Your task to perform on an android device: open app "Google Home" Image 0: 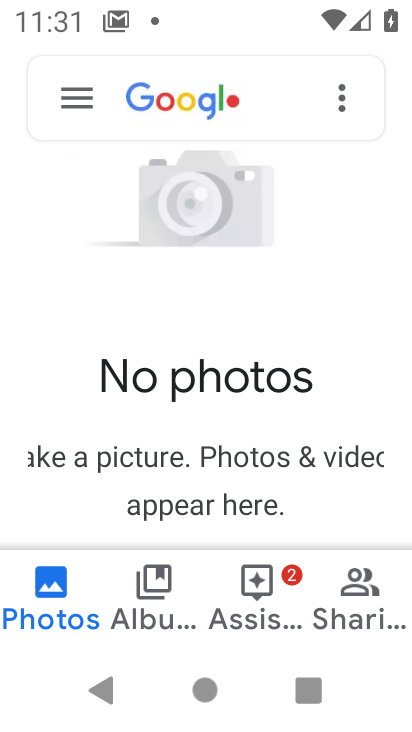
Step 0: press home button
Your task to perform on an android device: open app "Google Home" Image 1: 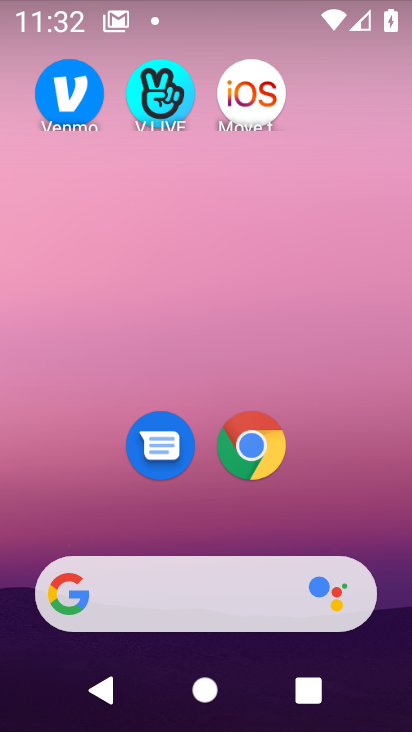
Step 1: drag from (248, 581) to (258, 133)
Your task to perform on an android device: open app "Google Home" Image 2: 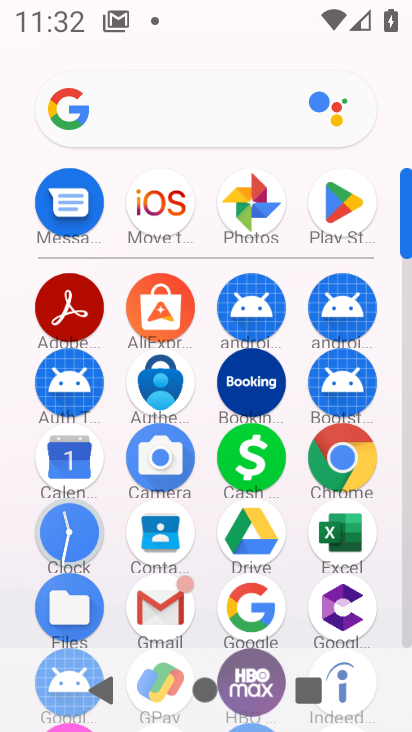
Step 2: click (355, 223)
Your task to perform on an android device: open app "Google Home" Image 3: 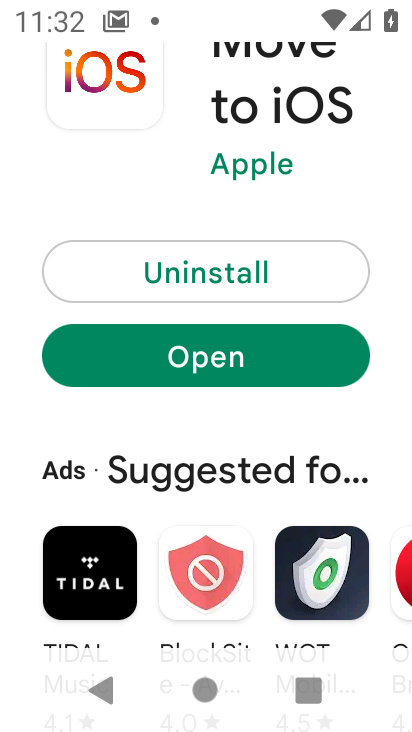
Step 3: drag from (108, 264) to (24, 626)
Your task to perform on an android device: open app "Google Home" Image 4: 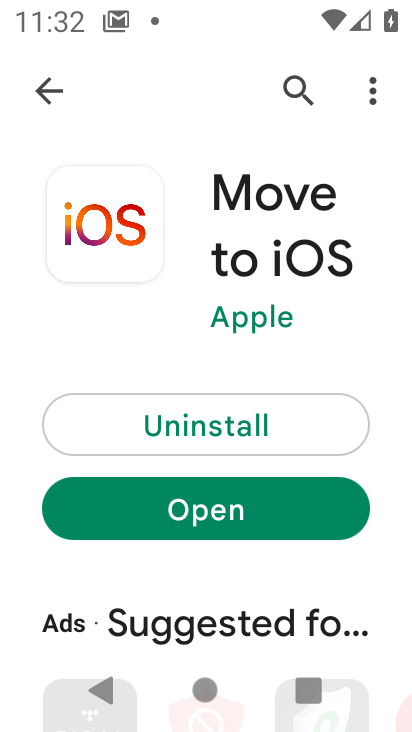
Step 4: click (59, 96)
Your task to perform on an android device: open app "Google Home" Image 5: 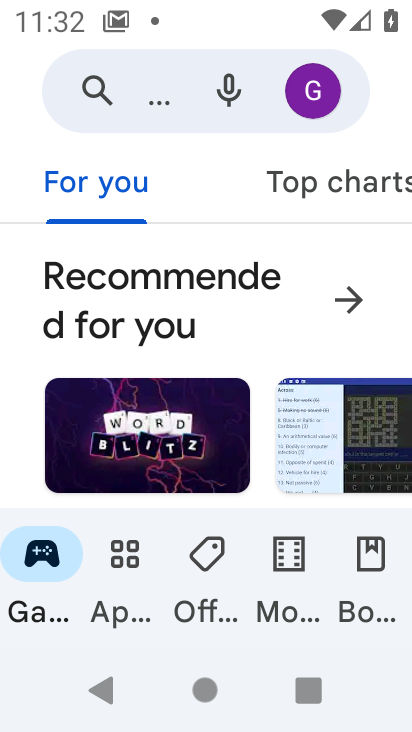
Step 5: click (90, 90)
Your task to perform on an android device: open app "Google Home" Image 6: 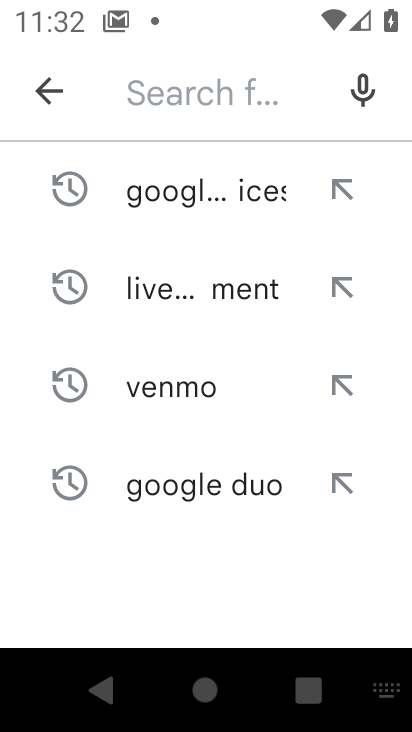
Step 6: type "Google Home"
Your task to perform on an android device: open app "Google Home" Image 7: 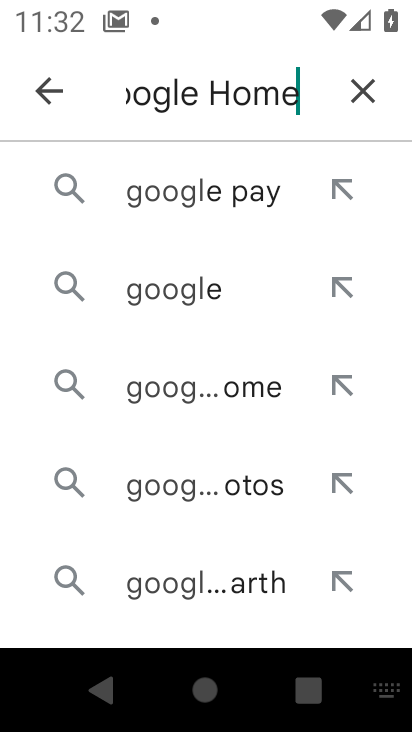
Step 7: type ""
Your task to perform on an android device: open app "Google Home" Image 8: 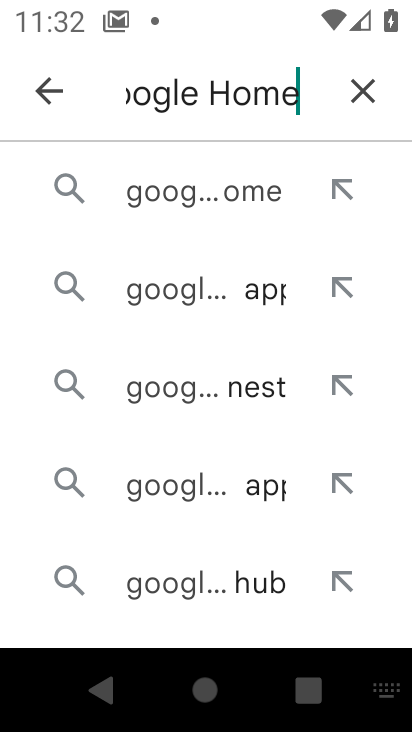
Step 8: click (232, 190)
Your task to perform on an android device: open app "Google Home" Image 9: 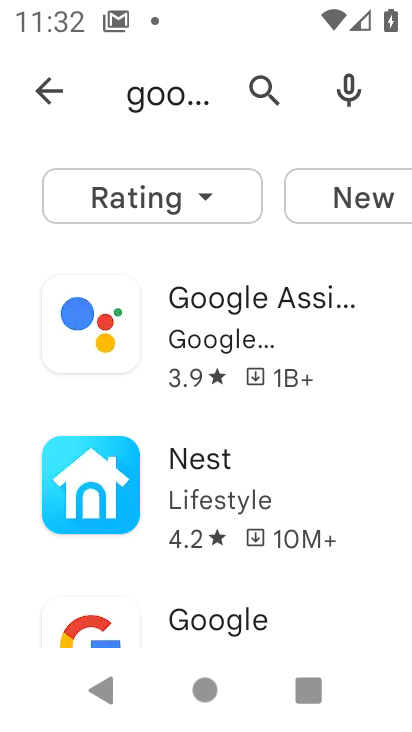
Step 9: drag from (217, 484) to (240, 246)
Your task to perform on an android device: open app "Google Home" Image 10: 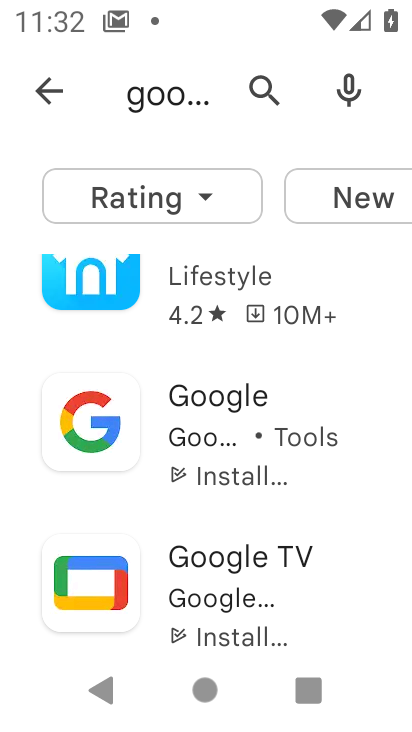
Step 10: drag from (188, 513) to (94, 564)
Your task to perform on an android device: open app "Google Home" Image 11: 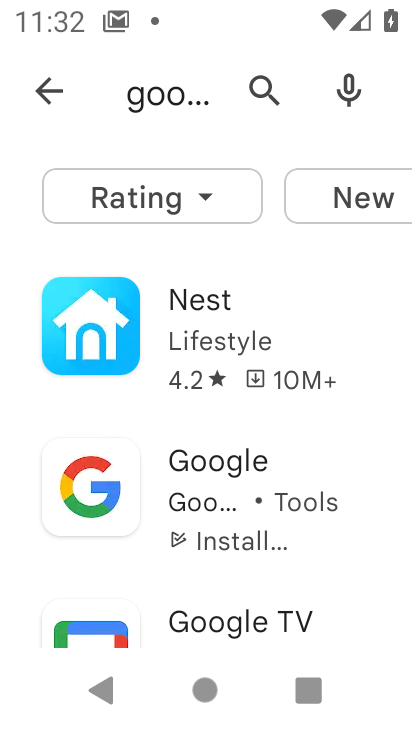
Step 11: drag from (202, 351) to (186, 721)
Your task to perform on an android device: open app "Google Home" Image 12: 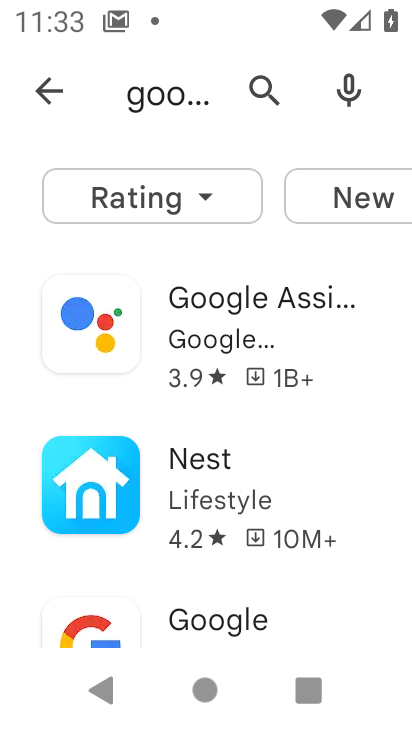
Step 12: click (257, 368)
Your task to perform on an android device: open app "Google Home" Image 13: 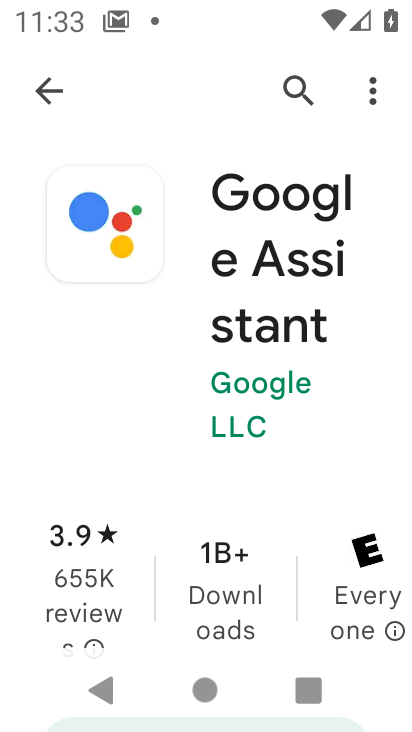
Step 13: task complete